Your task to perform on an android device: set default search engine in the chrome app Image 0: 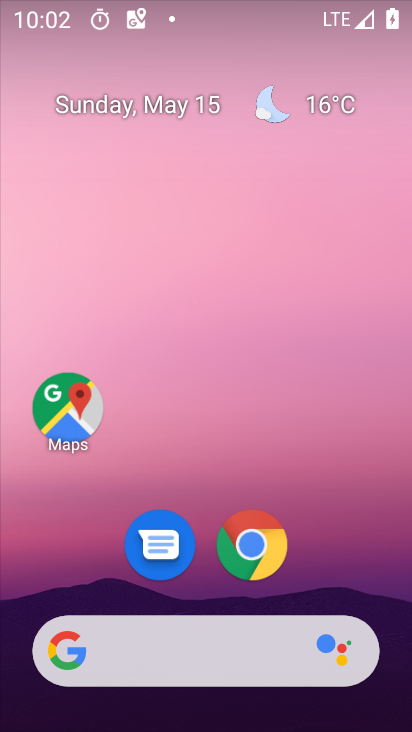
Step 0: click (254, 545)
Your task to perform on an android device: set default search engine in the chrome app Image 1: 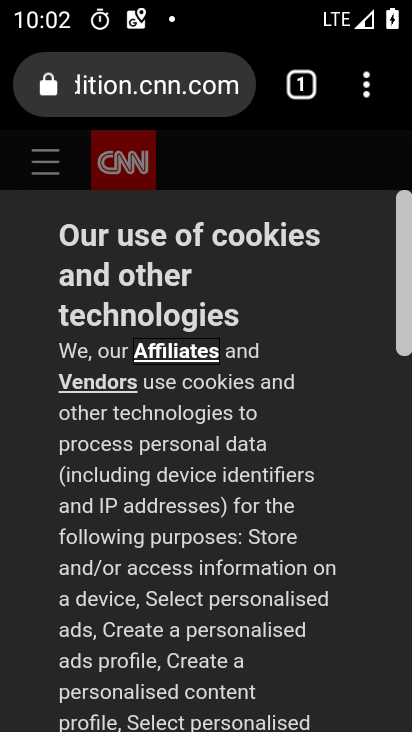
Step 1: click (370, 82)
Your task to perform on an android device: set default search engine in the chrome app Image 2: 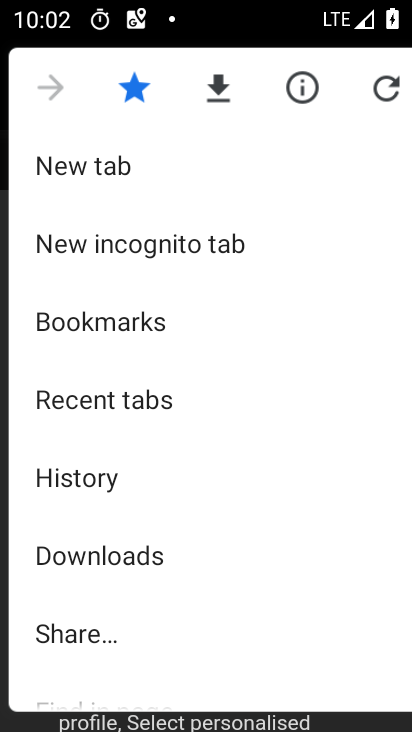
Step 2: drag from (147, 474) to (191, 373)
Your task to perform on an android device: set default search engine in the chrome app Image 3: 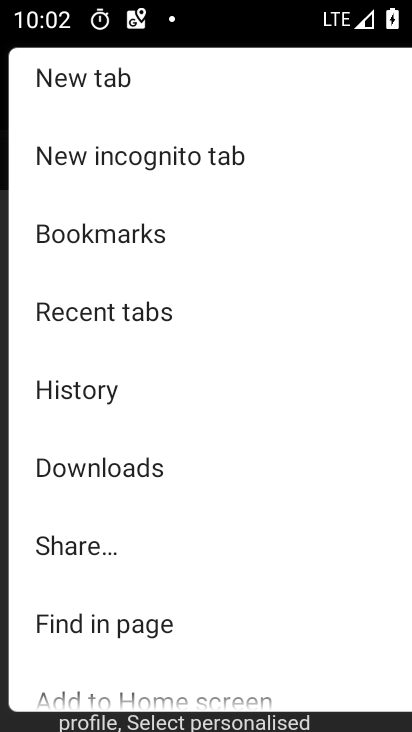
Step 3: drag from (130, 518) to (202, 393)
Your task to perform on an android device: set default search engine in the chrome app Image 4: 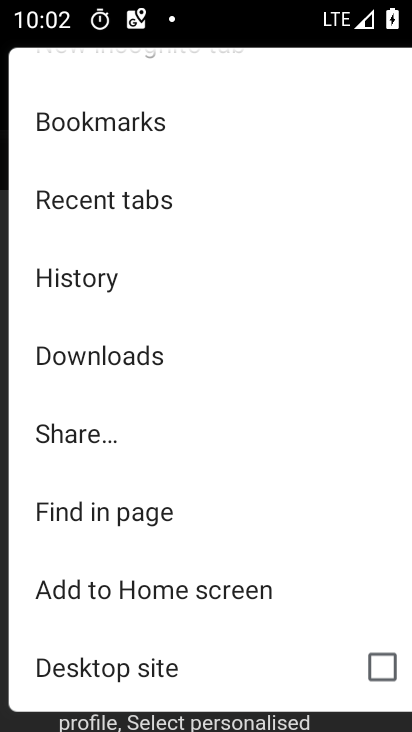
Step 4: drag from (148, 560) to (228, 395)
Your task to perform on an android device: set default search engine in the chrome app Image 5: 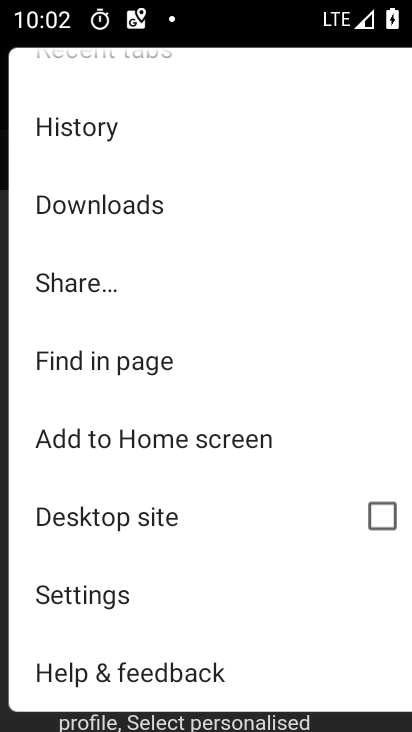
Step 5: click (104, 604)
Your task to perform on an android device: set default search engine in the chrome app Image 6: 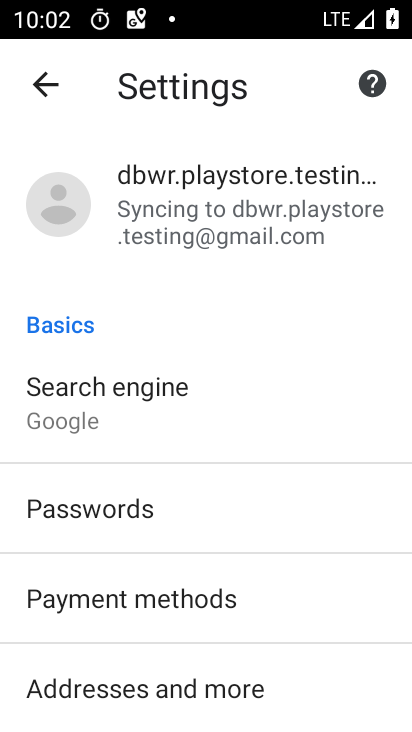
Step 6: click (68, 396)
Your task to perform on an android device: set default search engine in the chrome app Image 7: 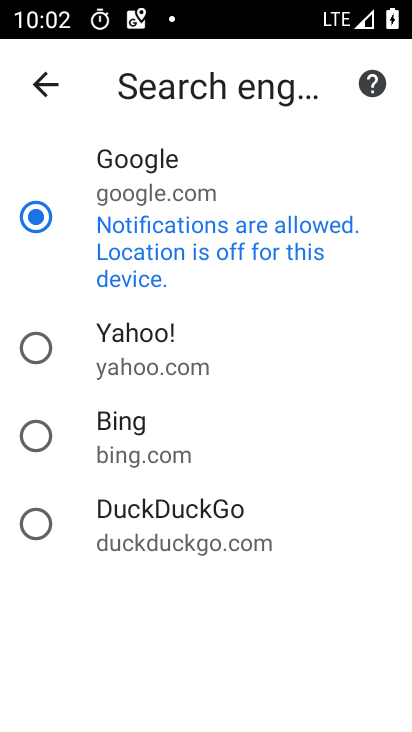
Step 7: click (35, 424)
Your task to perform on an android device: set default search engine in the chrome app Image 8: 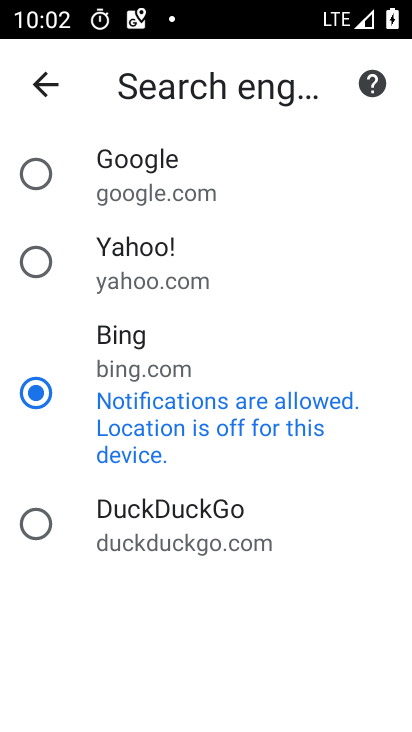
Step 8: task complete